Your task to perform on an android device: open device folders in google photos Image 0: 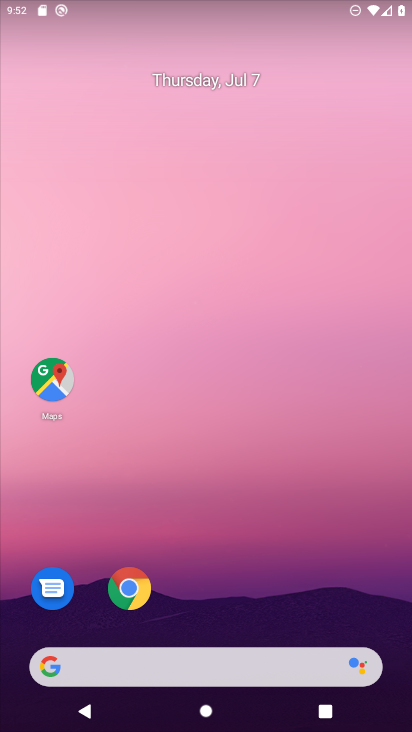
Step 0: drag from (191, 624) to (250, 84)
Your task to perform on an android device: open device folders in google photos Image 1: 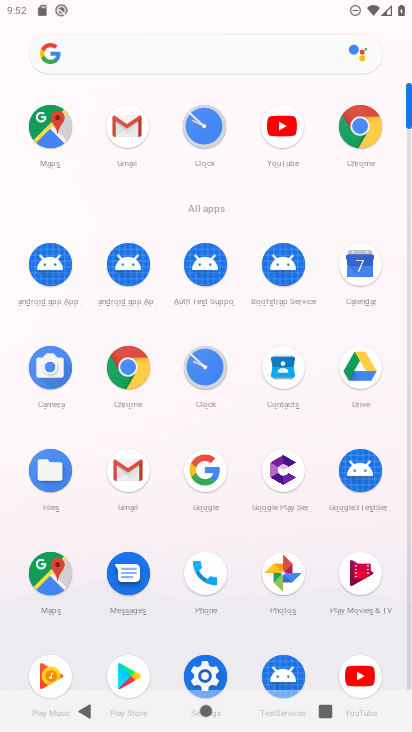
Step 1: click (277, 582)
Your task to perform on an android device: open device folders in google photos Image 2: 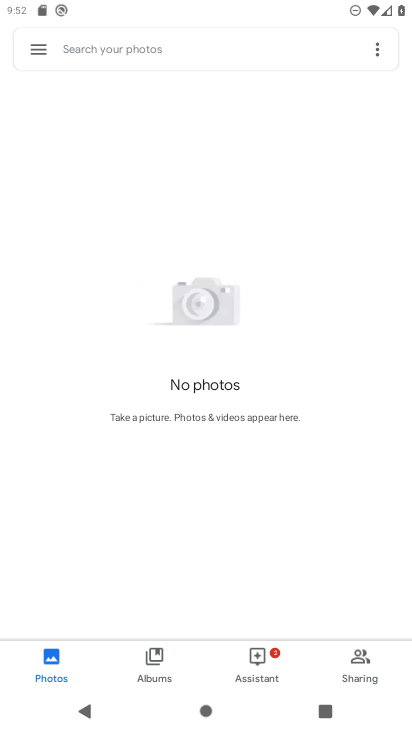
Step 2: click (36, 37)
Your task to perform on an android device: open device folders in google photos Image 3: 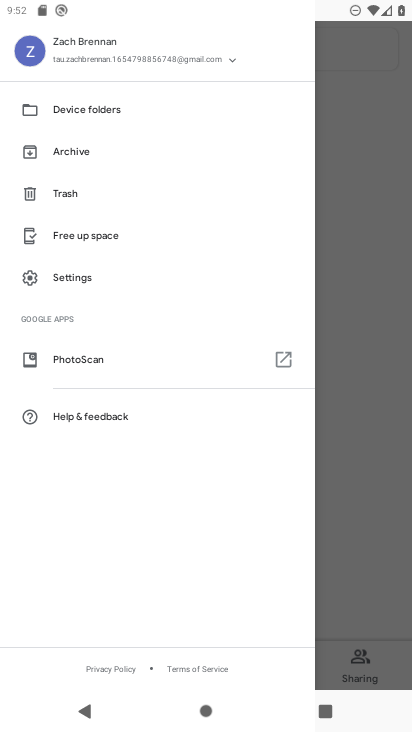
Step 3: click (117, 119)
Your task to perform on an android device: open device folders in google photos Image 4: 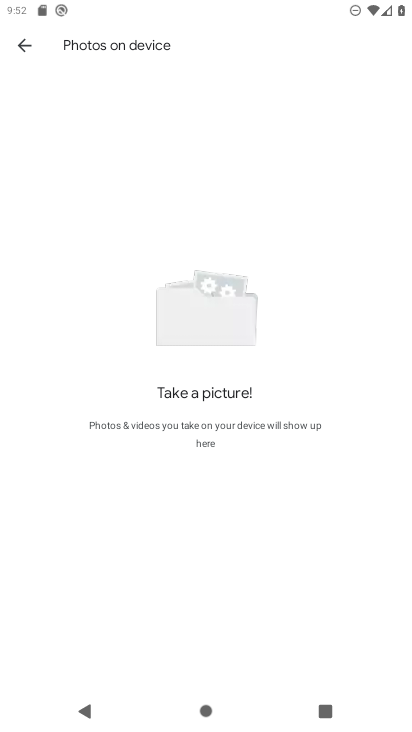
Step 4: task complete